Your task to perform on an android device: Search for Mexican restaurants on Maps Image 0: 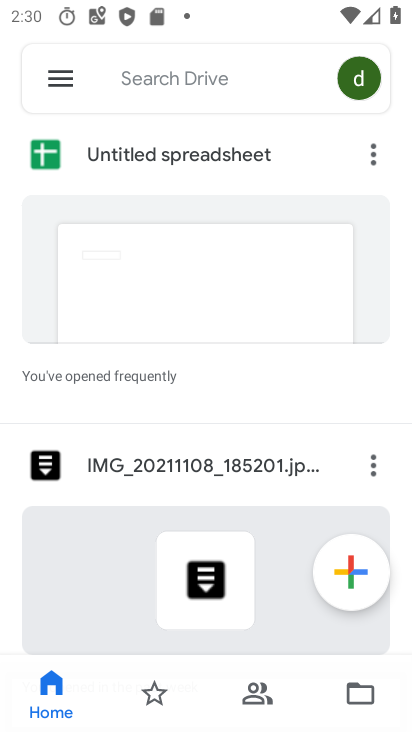
Step 0: press home button
Your task to perform on an android device: Search for Mexican restaurants on Maps Image 1: 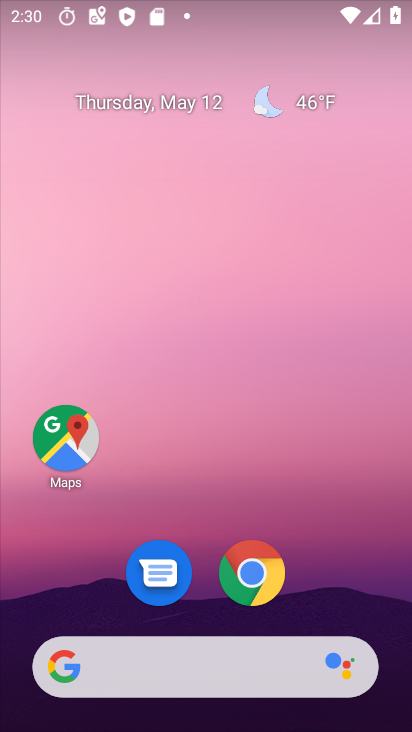
Step 1: click (77, 461)
Your task to perform on an android device: Search for Mexican restaurants on Maps Image 2: 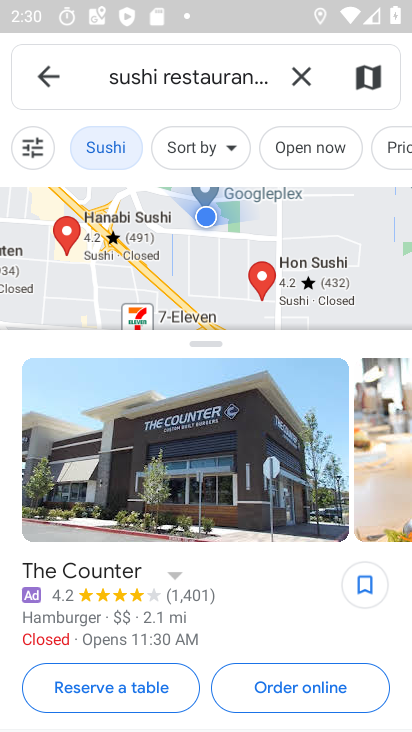
Step 2: click (302, 67)
Your task to perform on an android device: Search for Mexican restaurants on Maps Image 3: 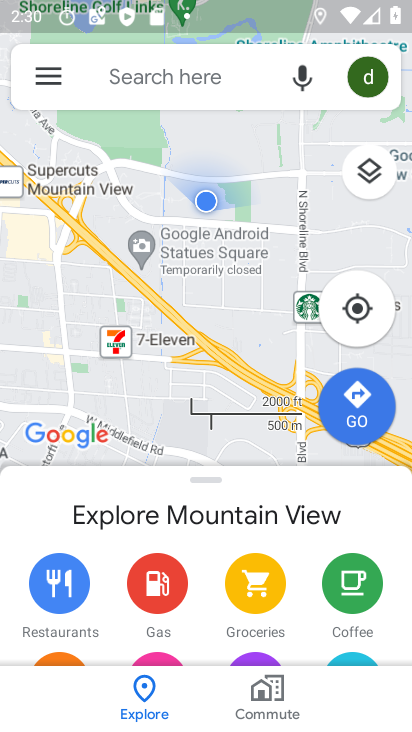
Step 3: click (237, 66)
Your task to perform on an android device: Search for Mexican restaurants on Maps Image 4: 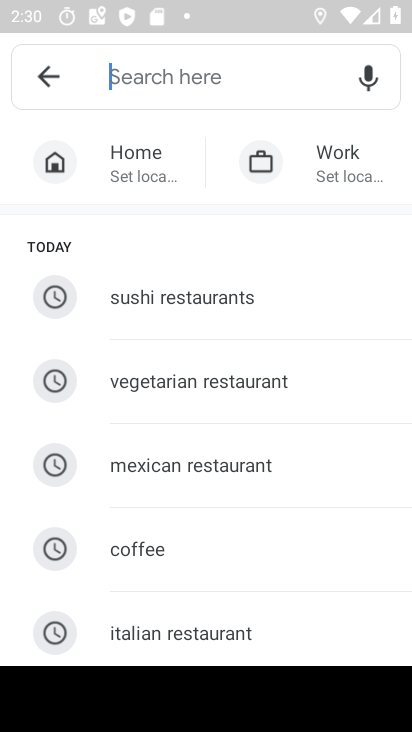
Step 4: click (246, 459)
Your task to perform on an android device: Search for Mexican restaurants on Maps Image 5: 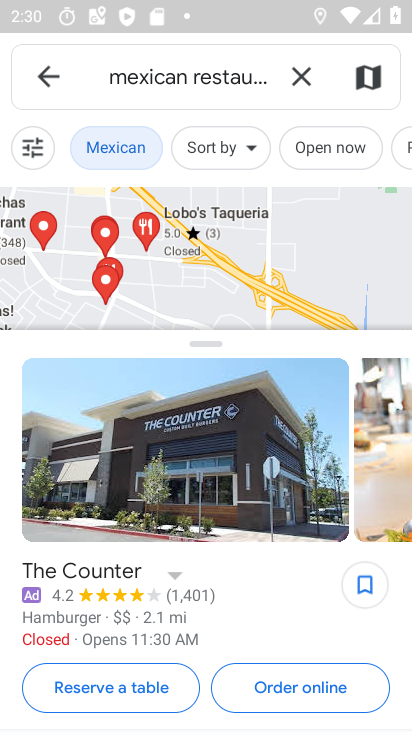
Step 5: task complete